Your task to perform on an android device: turn smart compose on in the gmail app Image 0: 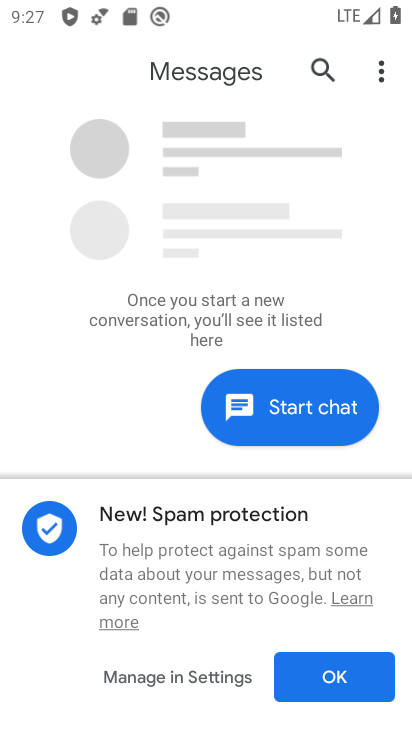
Step 0: press back button
Your task to perform on an android device: turn smart compose on in the gmail app Image 1: 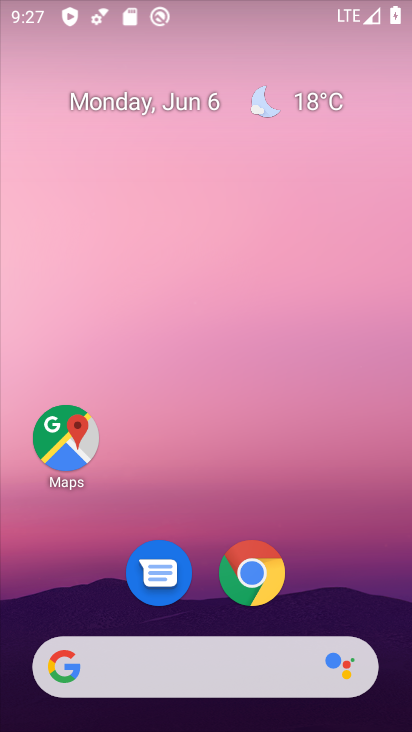
Step 1: drag from (204, 476) to (233, 11)
Your task to perform on an android device: turn smart compose on in the gmail app Image 2: 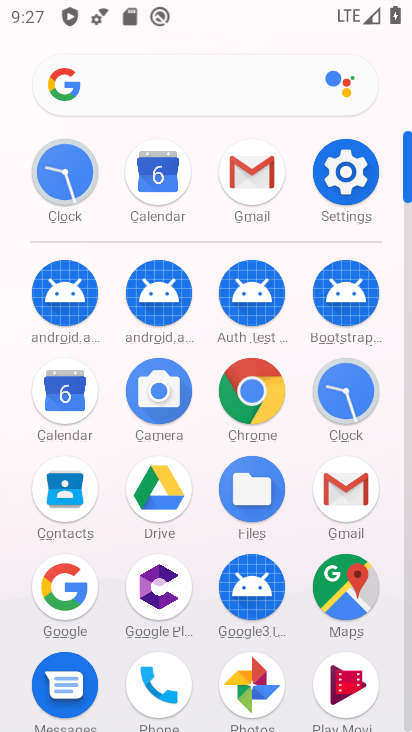
Step 2: click (260, 175)
Your task to perform on an android device: turn smart compose on in the gmail app Image 3: 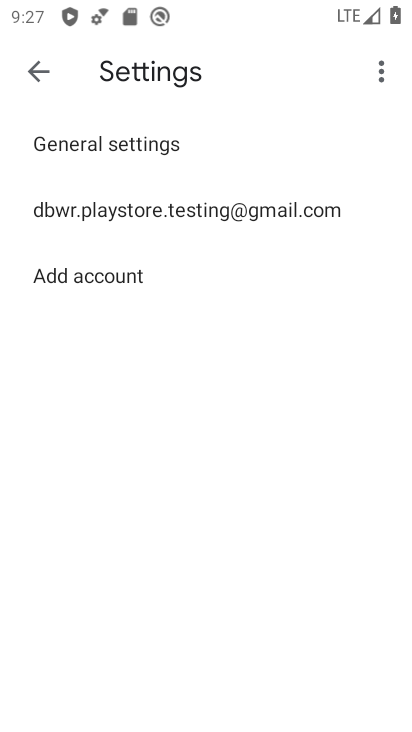
Step 3: click (36, 60)
Your task to perform on an android device: turn smart compose on in the gmail app Image 4: 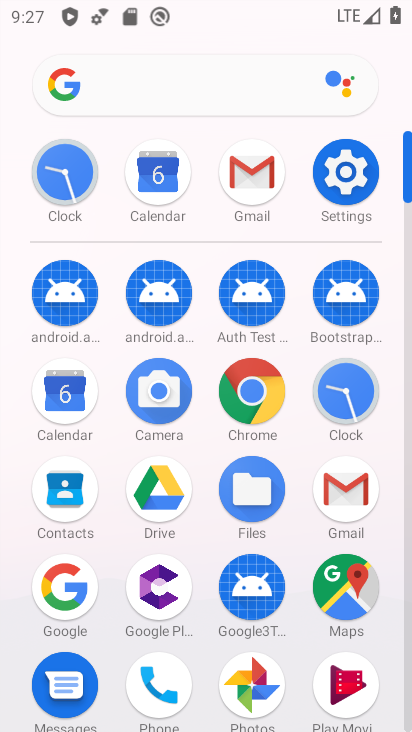
Step 4: click (243, 164)
Your task to perform on an android device: turn smart compose on in the gmail app Image 5: 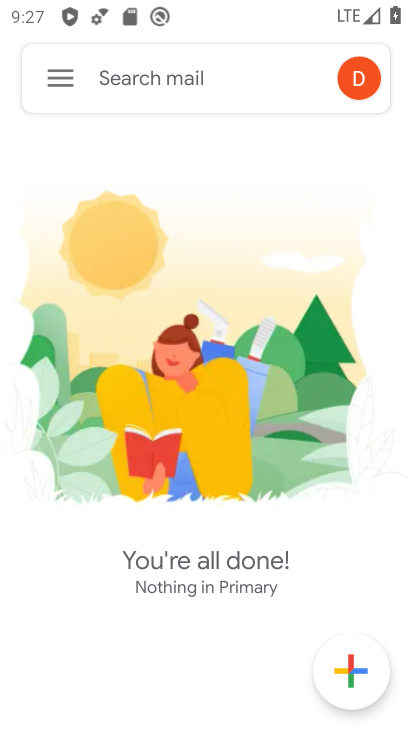
Step 5: click (46, 67)
Your task to perform on an android device: turn smart compose on in the gmail app Image 6: 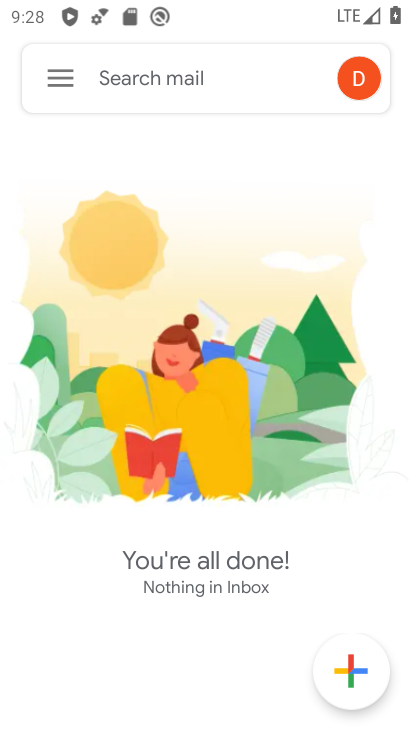
Step 6: click (56, 63)
Your task to perform on an android device: turn smart compose on in the gmail app Image 7: 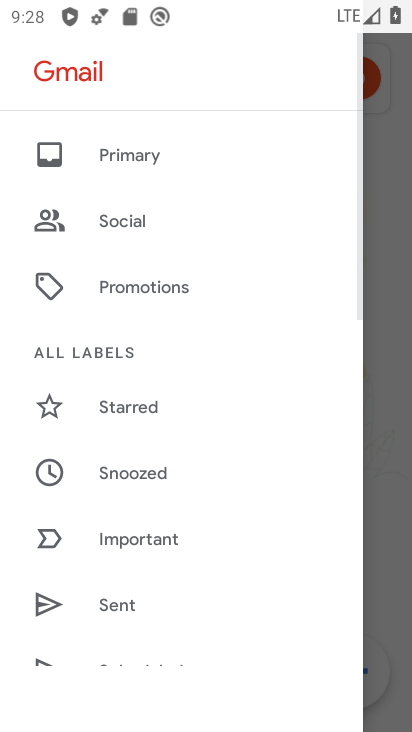
Step 7: drag from (173, 587) to (253, 73)
Your task to perform on an android device: turn smart compose on in the gmail app Image 8: 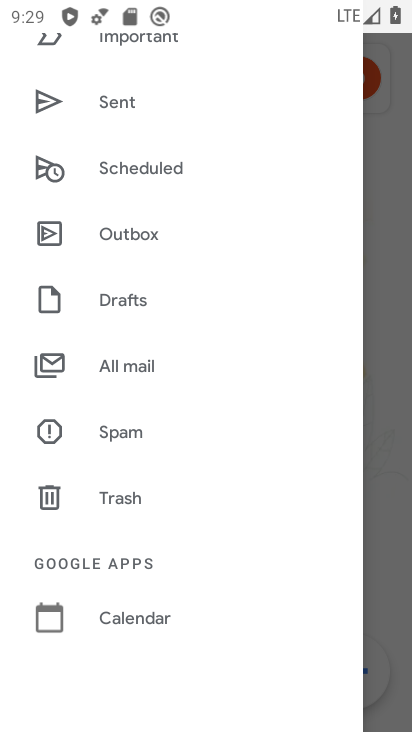
Step 8: drag from (167, 613) to (270, 78)
Your task to perform on an android device: turn smart compose on in the gmail app Image 9: 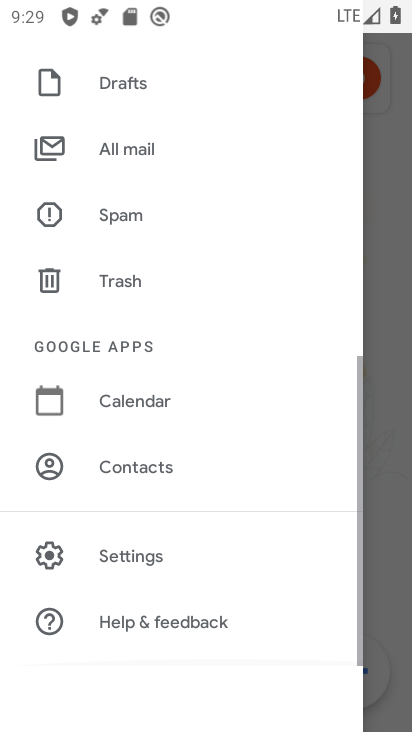
Step 9: click (109, 545)
Your task to perform on an android device: turn smart compose on in the gmail app Image 10: 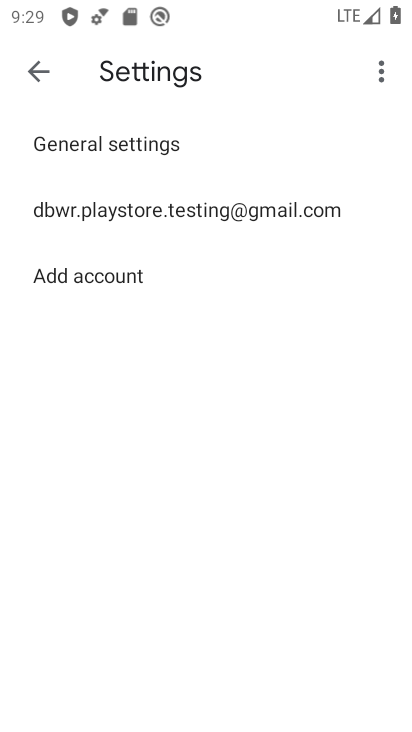
Step 10: click (165, 204)
Your task to perform on an android device: turn smart compose on in the gmail app Image 11: 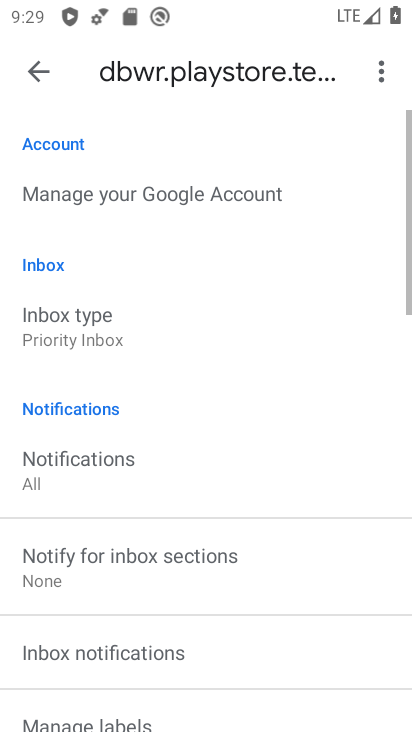
Step 11: task complete